Your task to perform on an android device: turn notification dots off Image 0: 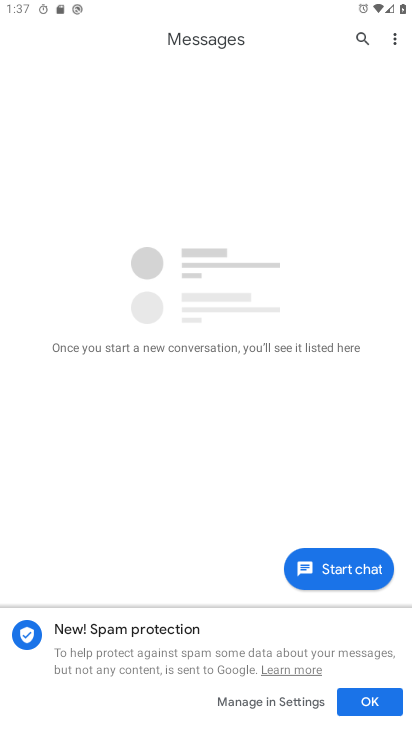
Step 0: press home button
Your task to perform on an android device: turn notification dots off Image 1: 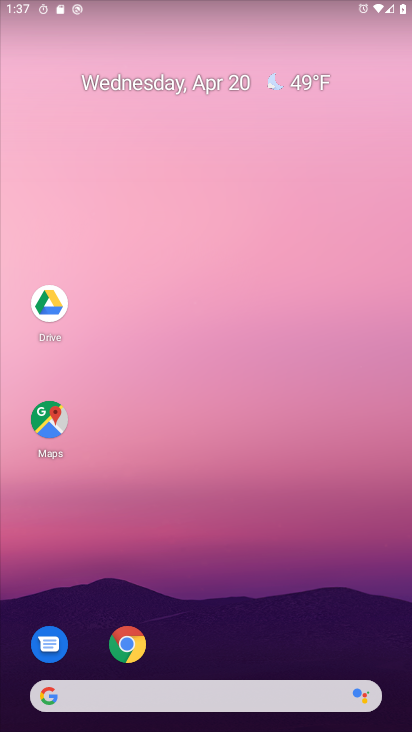
Step 1: drag from (215, 639) to (221, 18)
Your task to perform on an android device: turn notification dots off Image 2: 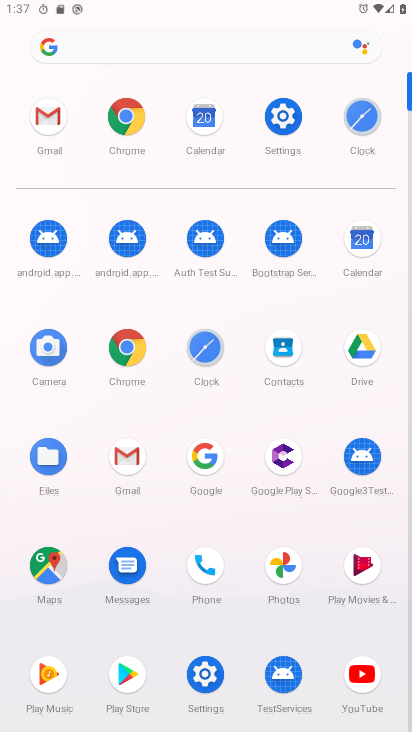
Step 2: click (284, 109)
Your task to perform on an android device: turn notification dots off Image 3: 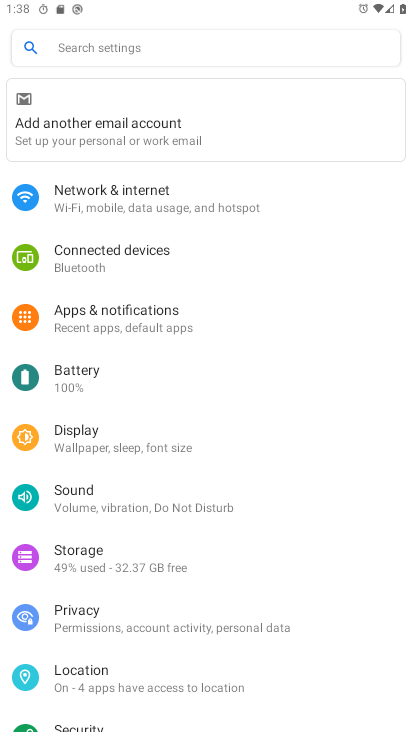
Step 3: click (156, 320)
Your task to perform on an android device: turn notification dots off Image 4: 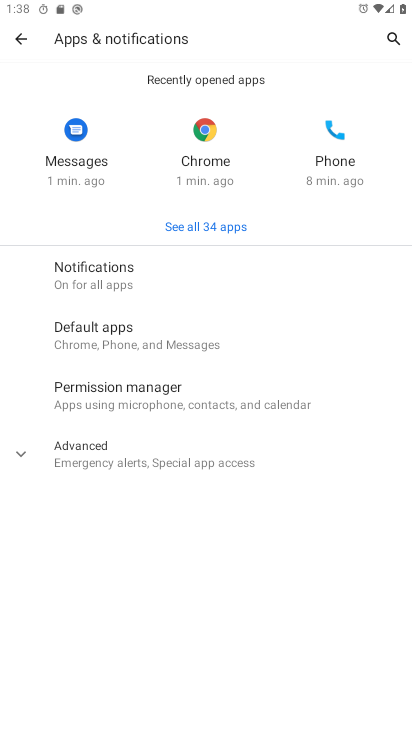
Step 4: click (108, 273)
Your task to perform on an android device: turn notification dots off Image 5: 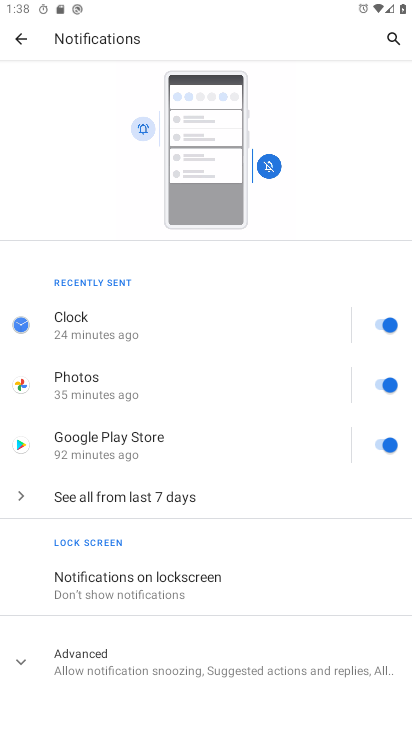
Step 5: click (182, 654)
Your task to perform on an android device: turn notification dots off Image 6: 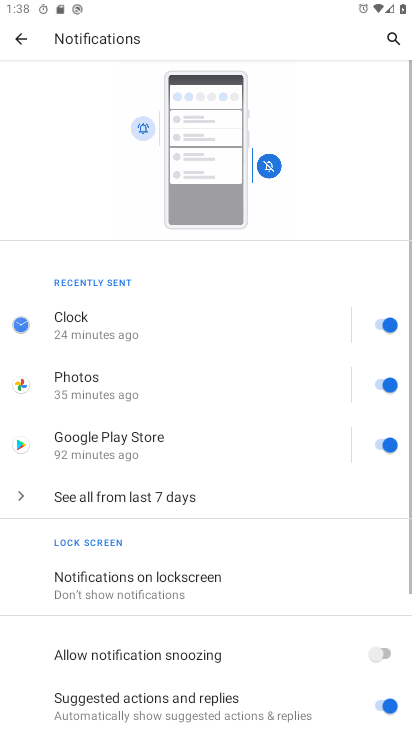
Step 6: drag from (279, 544) to (276, 426)
Your task to perform on an android device: turn notification dots off Image 7: 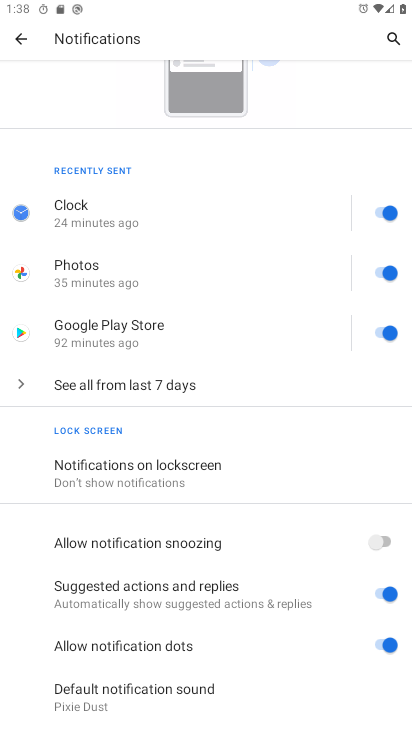
Step 7: click (385, 644)
Your task to perform on an android device: turn notification dots off Image 8: 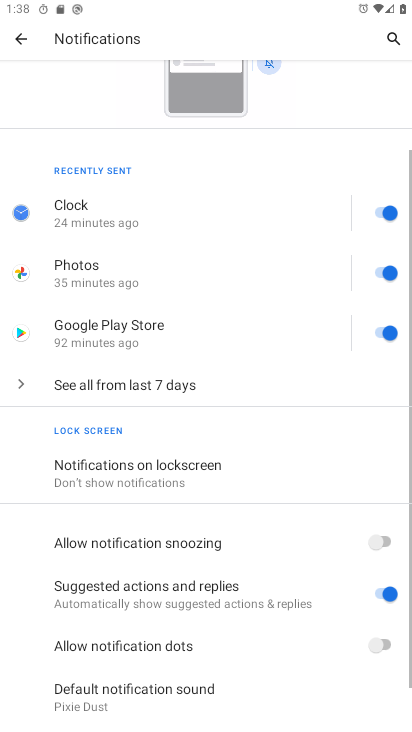
Step 8: task complete